Your task to perform on an android device: turn on wifi Image 0: 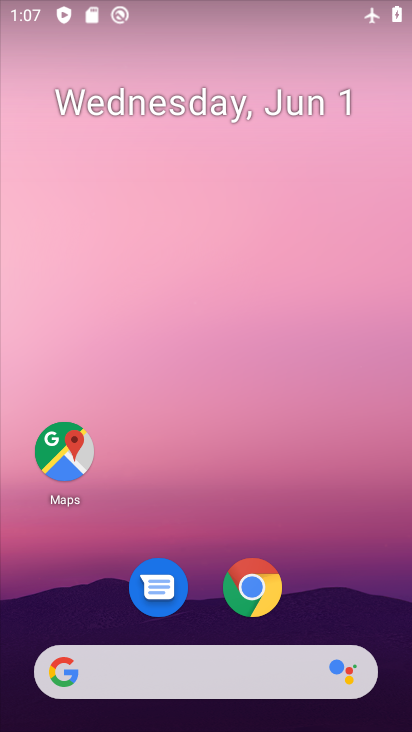
Step 0: drag from (292, 498) to (242, 174)
Your task to perform on an android device: turn on wifi Image 1: 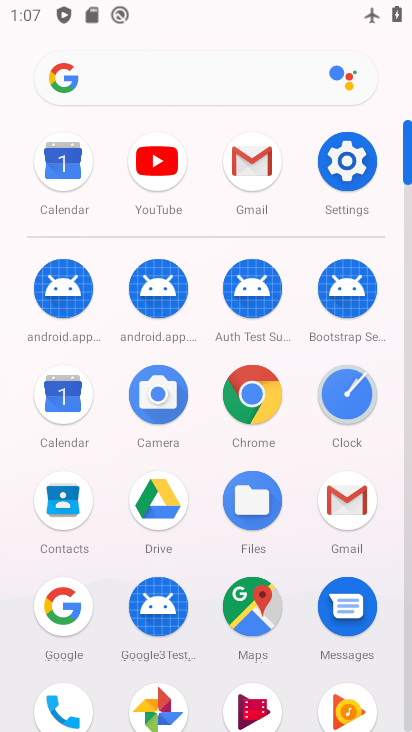
Step 1: click (340, 167)
Your task to perform on an android device: turn on wifi Image 2: 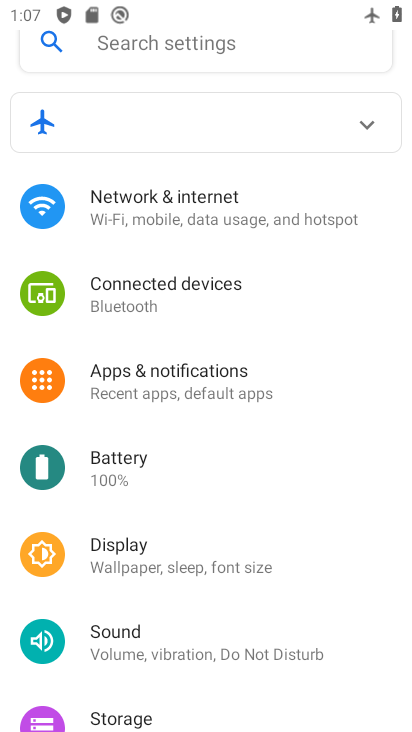
Step 2: click (159, 203)
Your task to perform on an android device: turn on wifi Image 3: 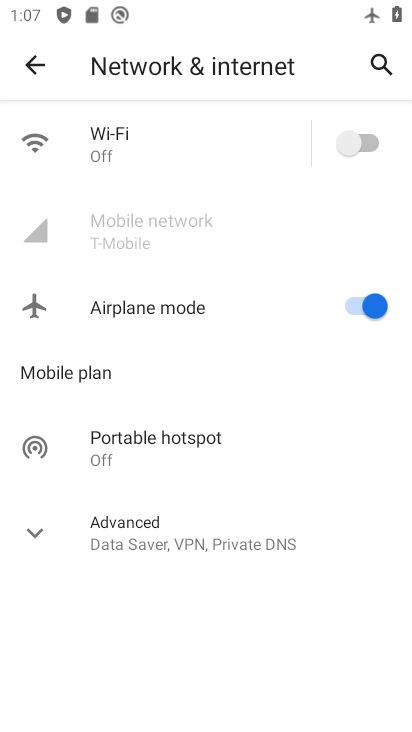
Step 3: click (349, 140)
Your task to perform on an android device: turn on wifi Image 4: 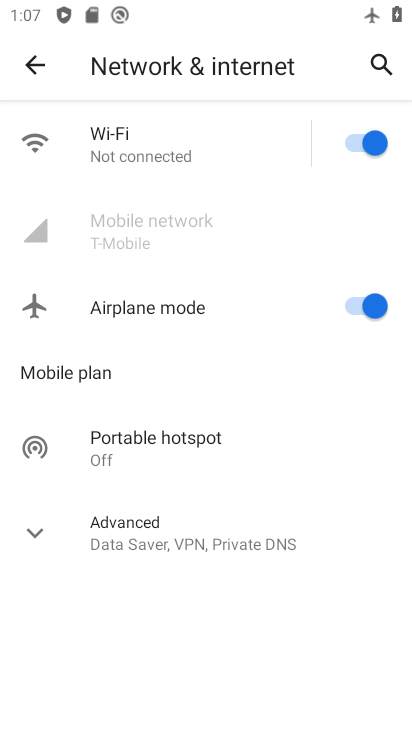
Step 4: task complete